Your task to perform on an android device: turn off wifi Image 0: 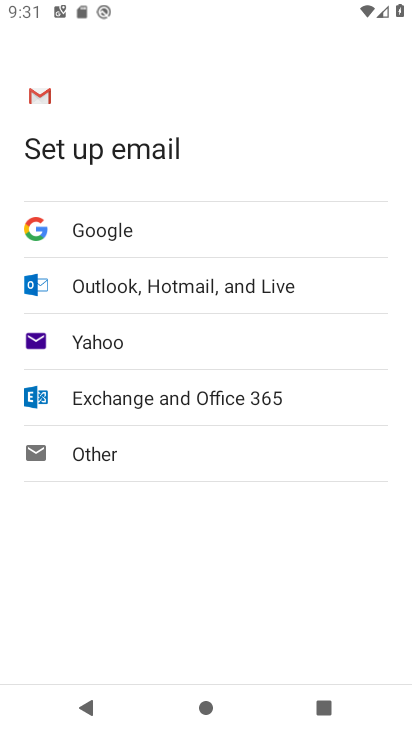
Step 0: press home button
Your task to perform on an android device: turn off wifi Image 1: 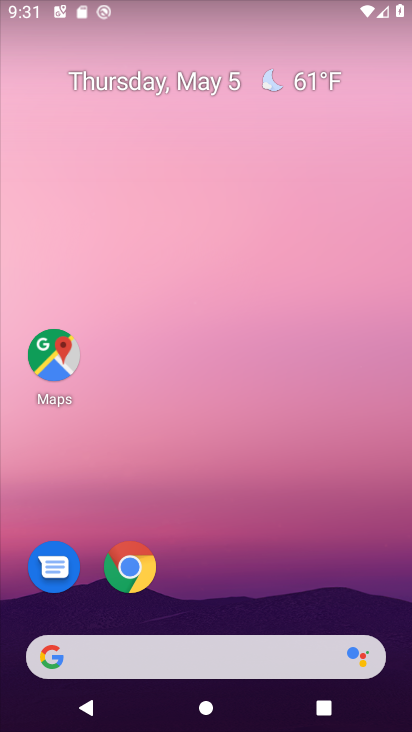
Step 1: drag from (293, 586) to (277, 132)
Your task to perform on an android device: turn off wifi Image 2: 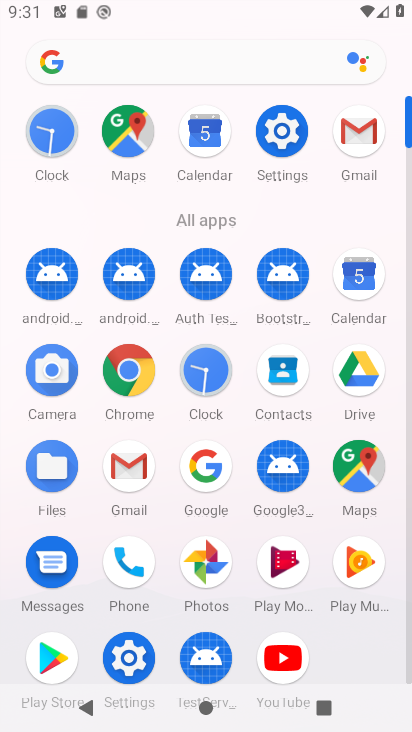
Step 2: click (272, 134)
Your task to perform on an android device: turn off wifi Image 3: 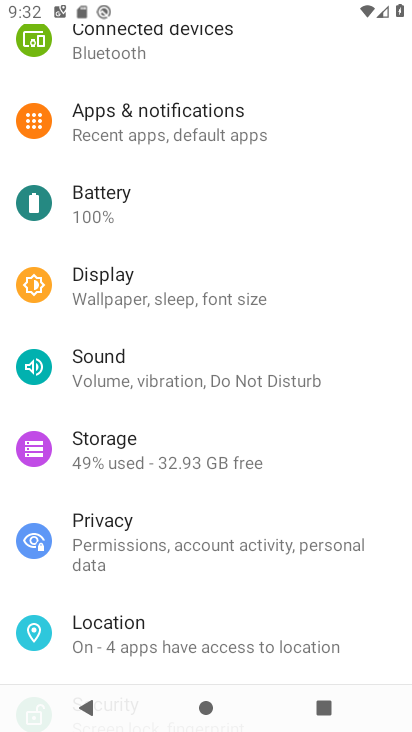
Step 3: drag from (183, 190) to (177, 503)
Your task to perform on an android device: turn off wifi Image 4: 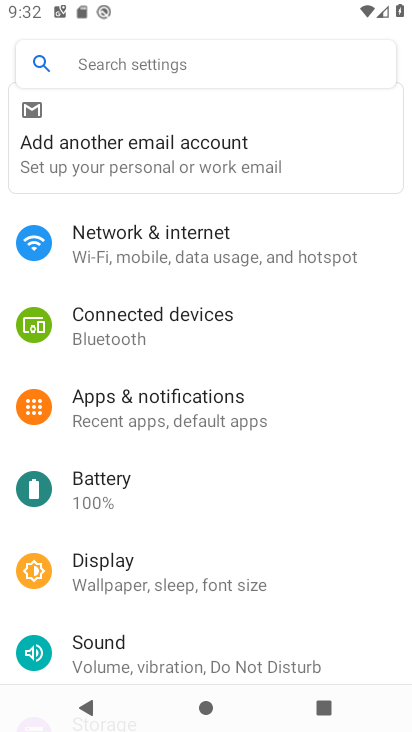
Step 4: click (161, 263)
Your task to perform on an android device: turn off wifi Image 5: 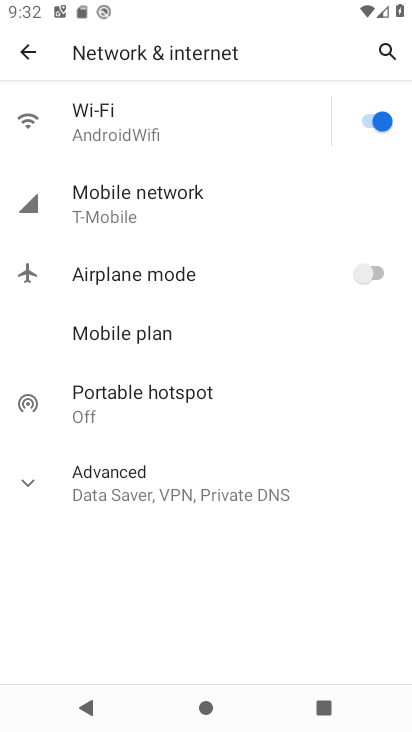
Step 5: click (369, 120)
Your task to perform on an android device: turn off wifi Image 6: 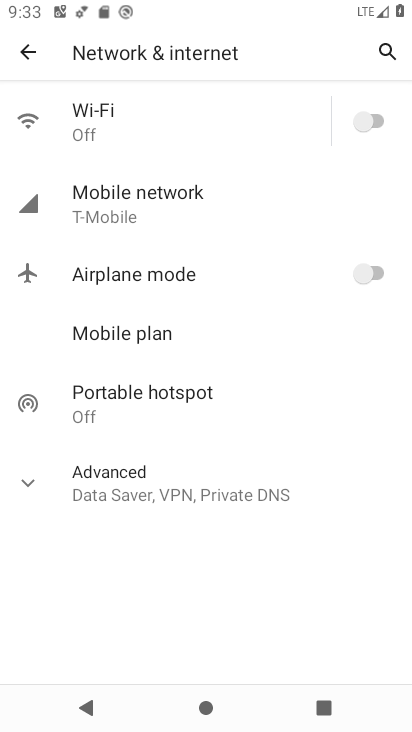
Step 6: task complete